Your task to perform on an android device: open a new tab in the chrome app Image 0: 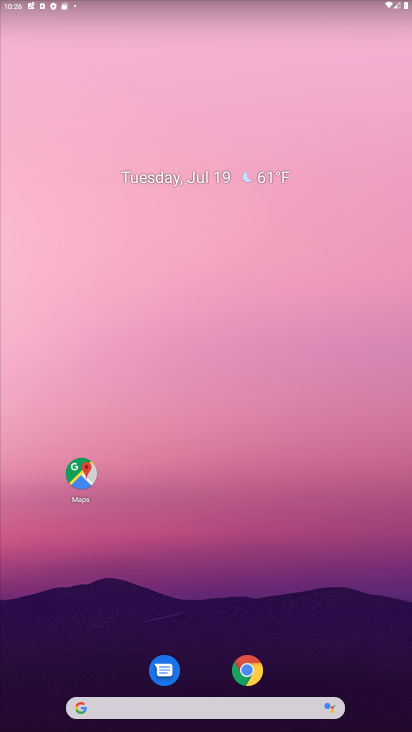
Step 0: click (244, 671)
Your task to perform on an android device: open a new tab in the chrome app Image 1: 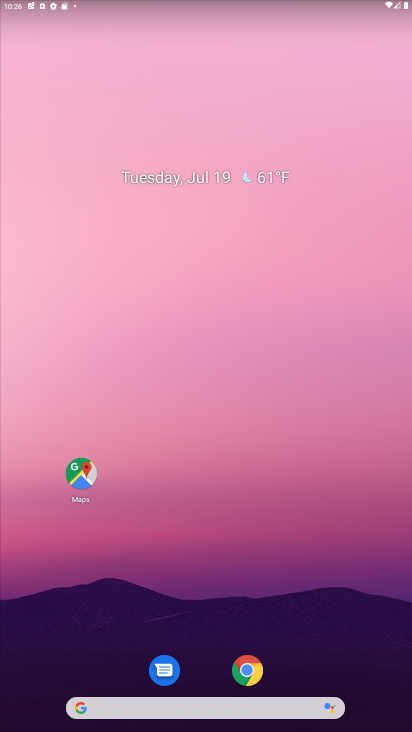
Step 1: click (244, 671)
Your task to perform on an android device: open a new tab in the chrome app Image 2: 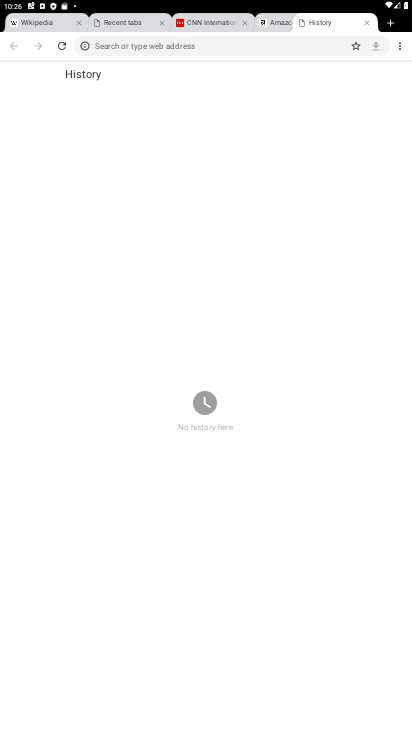
Step 2: click (397, 45)
Your task to perform on an android device: open a new tab in the chrome app Image 3: 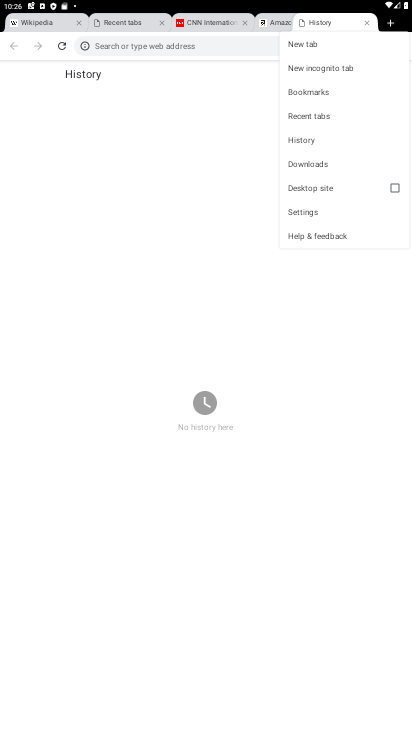
Step 3: click (320, 38)
Your task to perform on an android device: open a new tab in the chrome app Image 4: 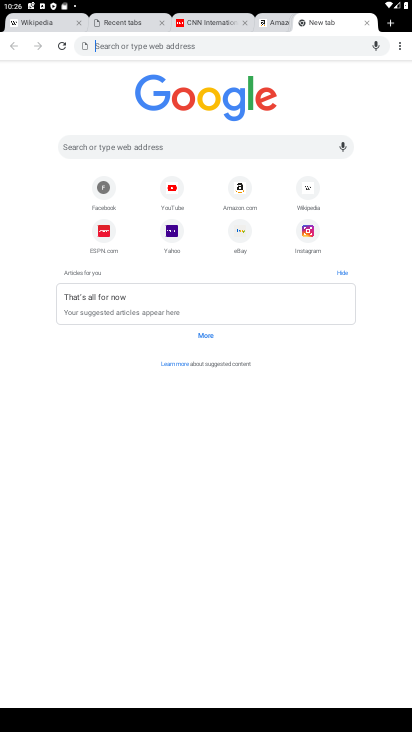
Step 4: task complete